Your task to perform on an android device: Open Yahoo.com Image 0: 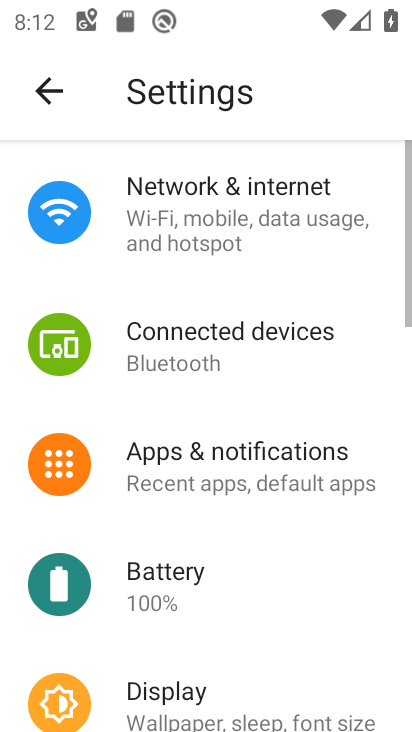
Step 0: press home button
Your task to perform on an android device: Open Yahoo.com Image 1: 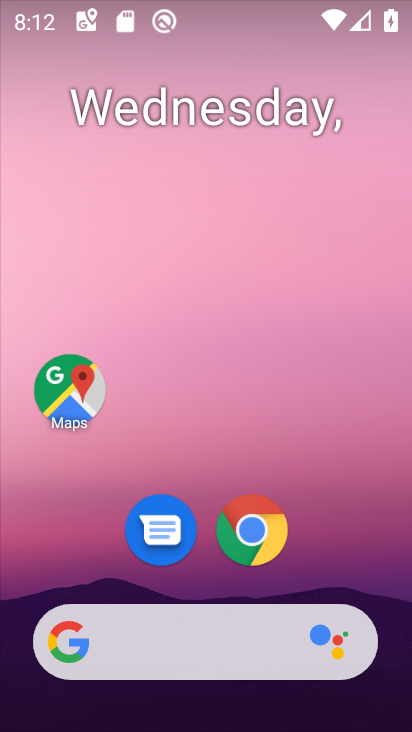
Step 1: drag from (388, 619) to (297, 40)
Your task to perform on an android device: Open Yahoo.com Image 2: 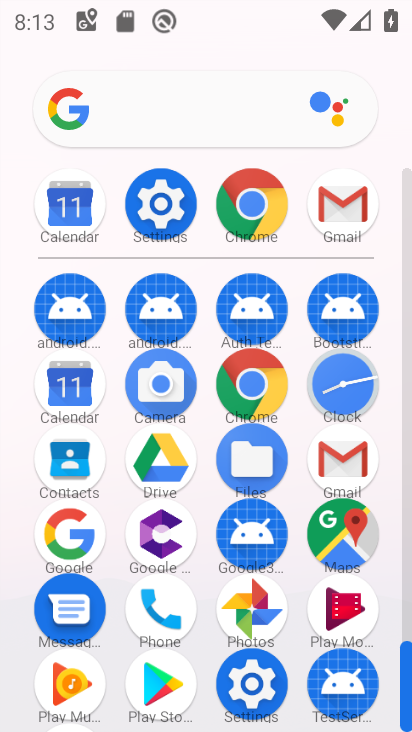
Step 2: click (252, 218)
Your task to perform on an android device: Open Yahoo.com Image 3: 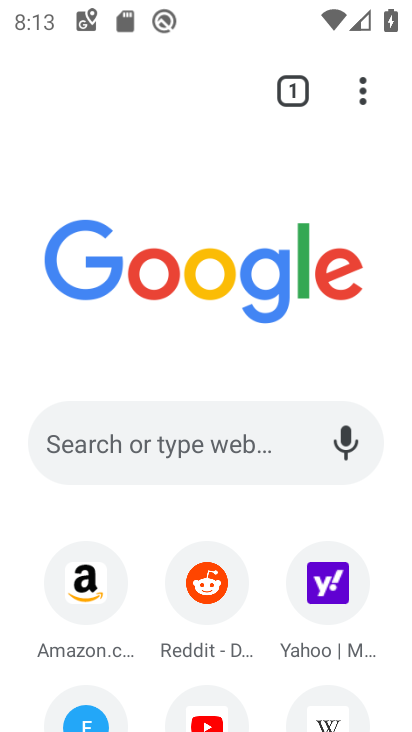
Step 3: click (324, 609)
Your task to perform on an android device: Open Yahoo.com Image 4: 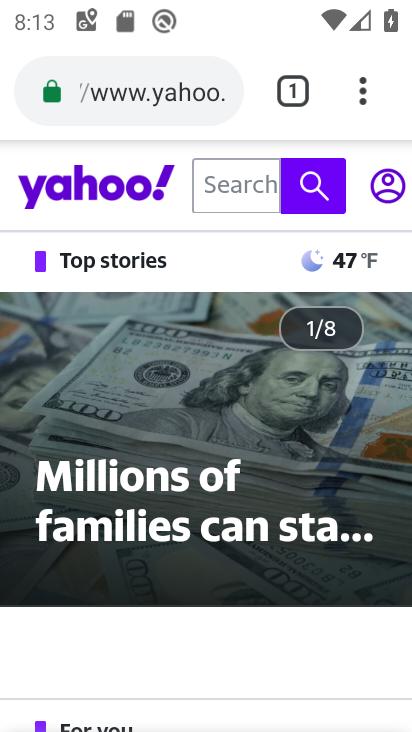
Step 4: task complete